Your task to perform on an android device: Go to Google Image 0: 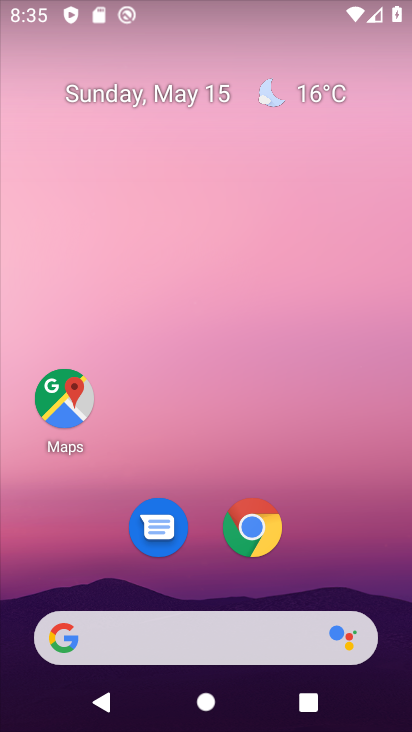
Step 0: click (371, 2)
Your task to perform on an android device: Go to Google Image 1: 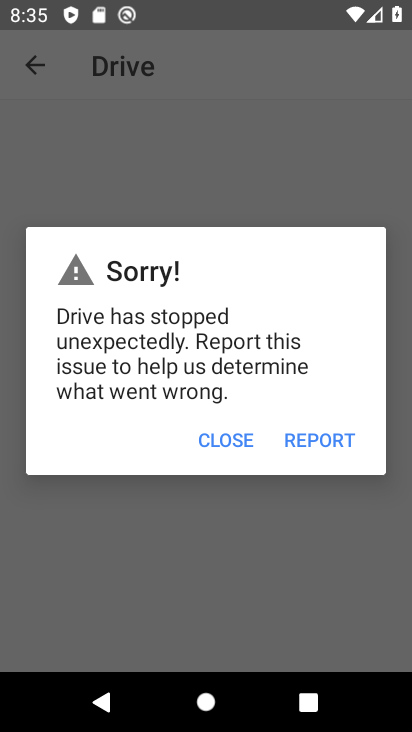
Step 1: press home button
Your task to perform on an android device: Go to Google Image 2: 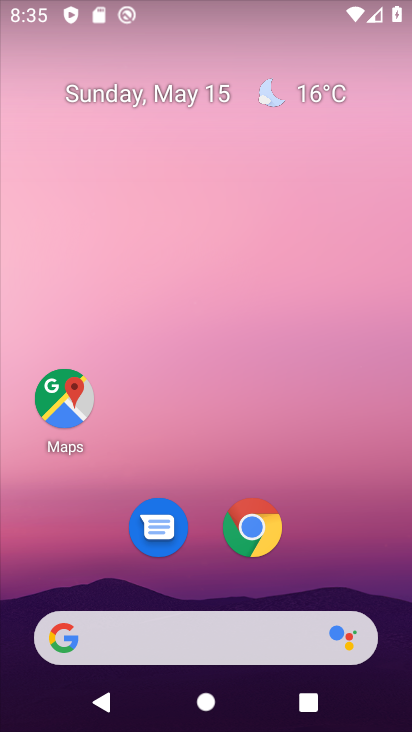
Step 2: drag from (335, 593) to (356, 53)
Your task to perform on an android device: Go to Google Image 3: 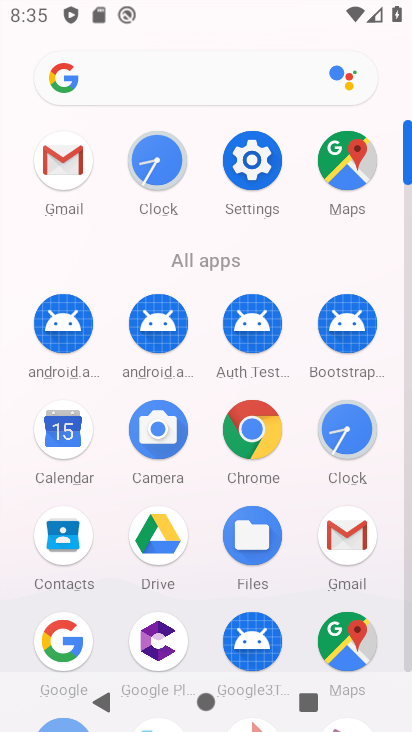
Step 3: click (66, 637)
Your task to perform on an android device: Go to Google Image 4: 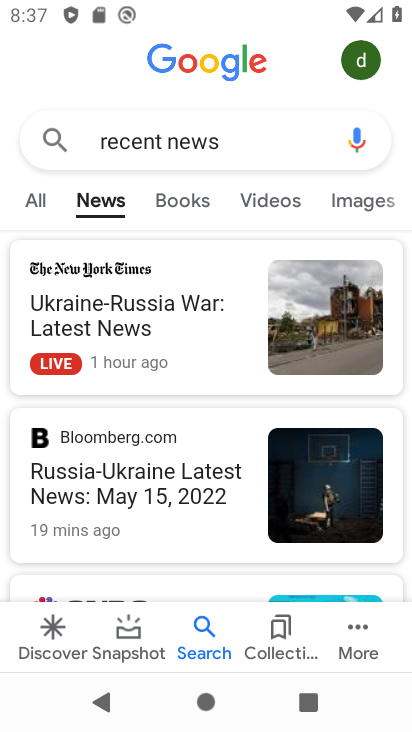
Step 4: task complete